Your task to perform on an android device: Open Google Maps Image 0: 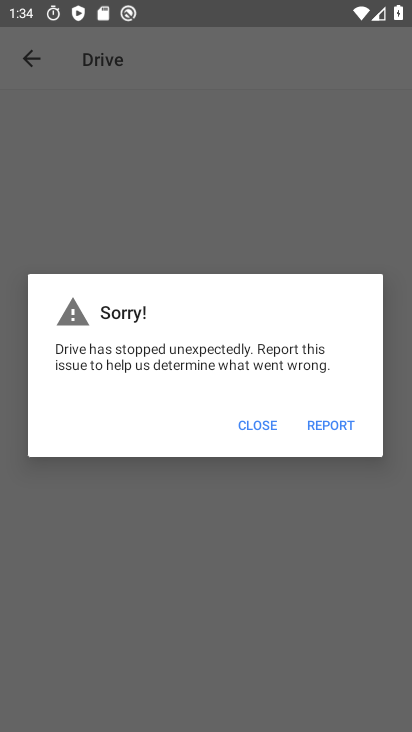
Step 0: press home button
Your task to perform on an android device: Open Google Maps Image 1: 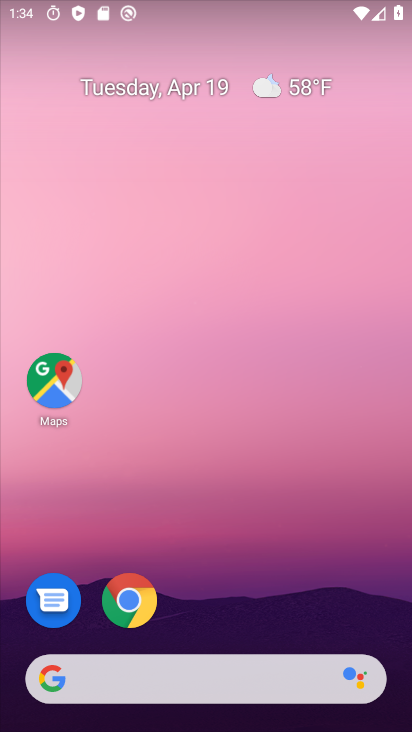
Step 1: drag from (180, 714) to (335, 243)
Your task to perform on an android device: Open Google Maps Image 2: 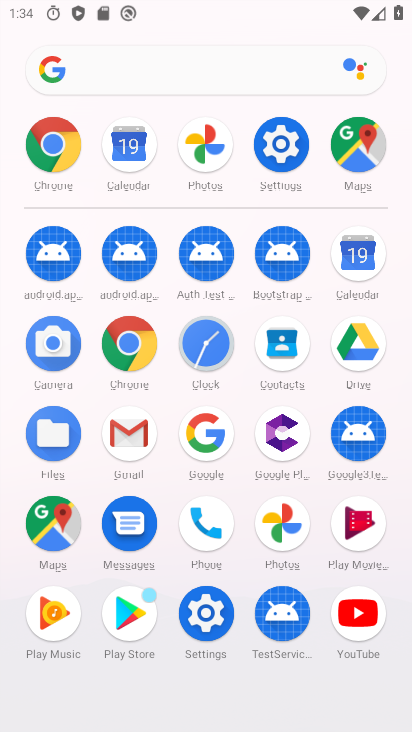
Step 2: click (363, 159)
Your task to perform on an android device: Open Google Maps Image 3: 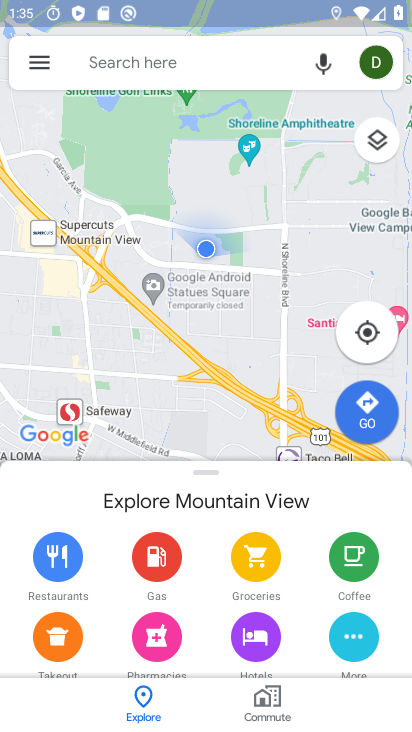
Step 3: task complete